Your task to perform on an android device: Open accessibility settings Image 0: 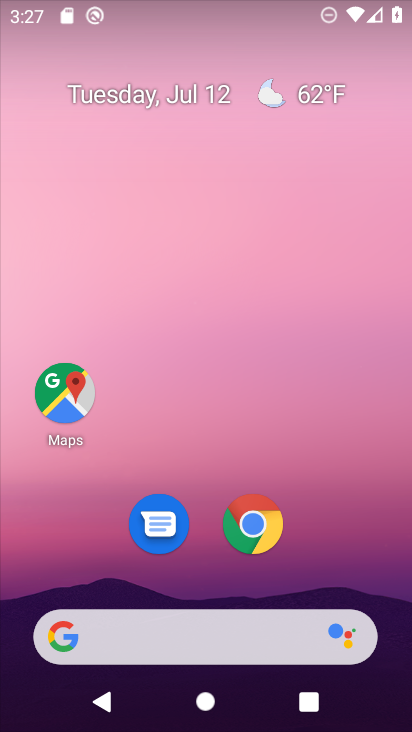
Step 0: drag from (328, 527) to (255, 25)
Your task to perform on an android device: Open accessibility settings Image 1: 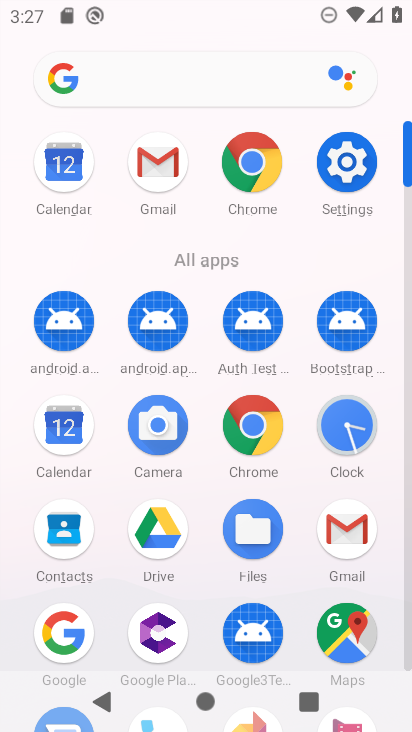
Step 1: click (343, 168)
Your task to perform on an android device: Open accessibility settings Image 2: 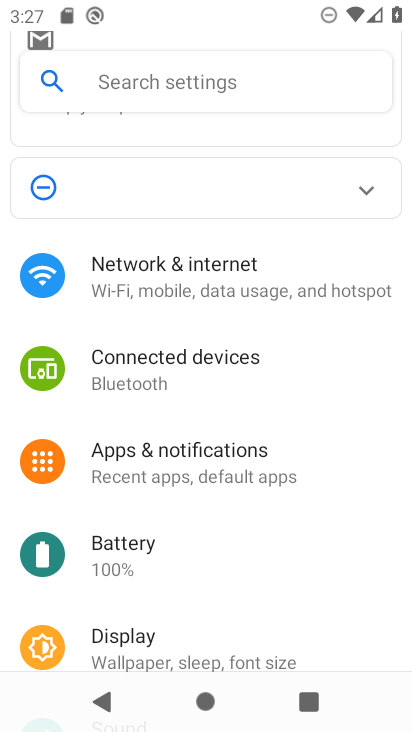
Step 2: drag from (268, 554) to (243, 86)
Your task to perform on an android device: Open accessibility settings Image 3: 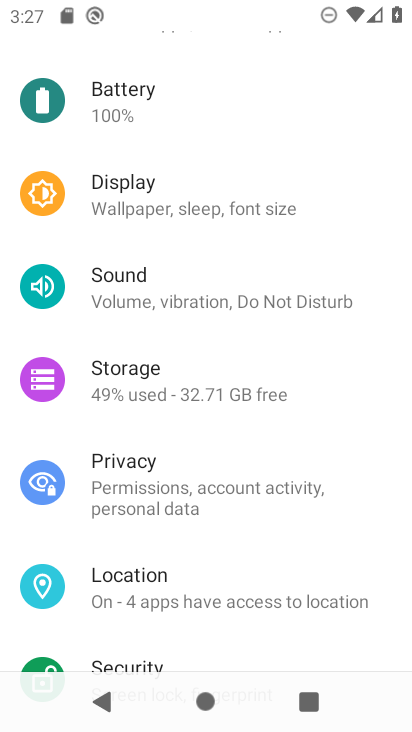
Step 3: drag from (234, 538) to (251, 72)
Your task to perform on an android device: Open accessibility settings Image 4: 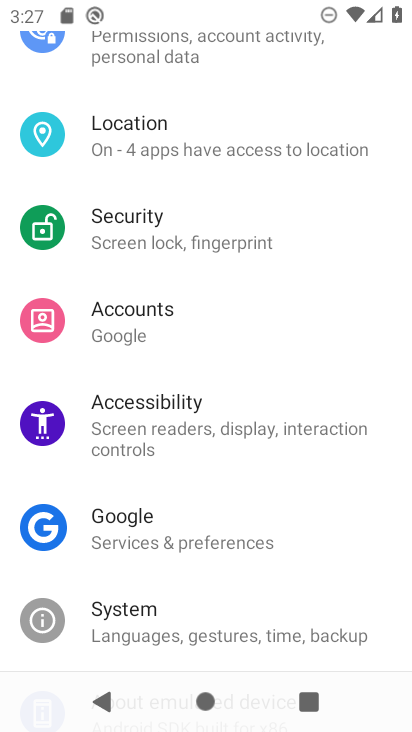
Step 4: click (223, 415)
Your task to perform on an android device: Open accessibility settings Image 5: 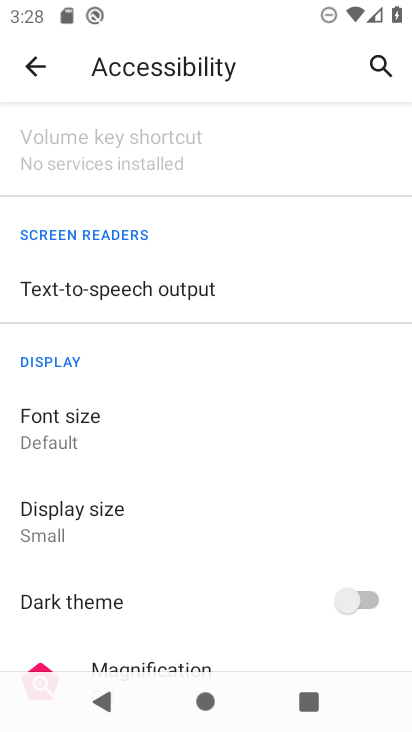
Step 5: task complete